Your task to perform on an android device: Open Google Maps and go to "Timeline" Image 0: 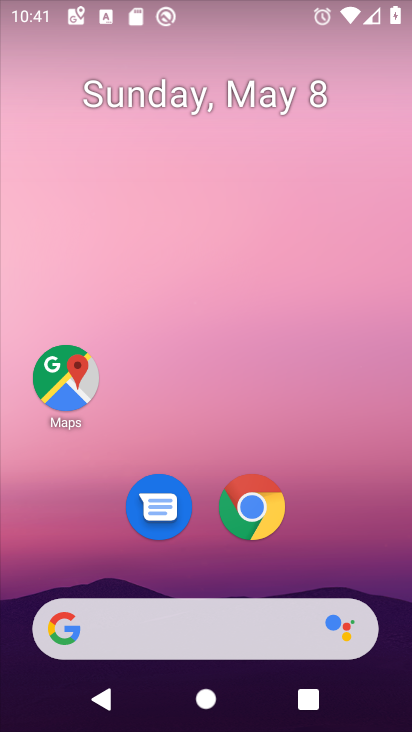
Step 0: click (74, 380)
Your task to perform on an android device: Open Google Maps and go to "Timeline" Image 1: 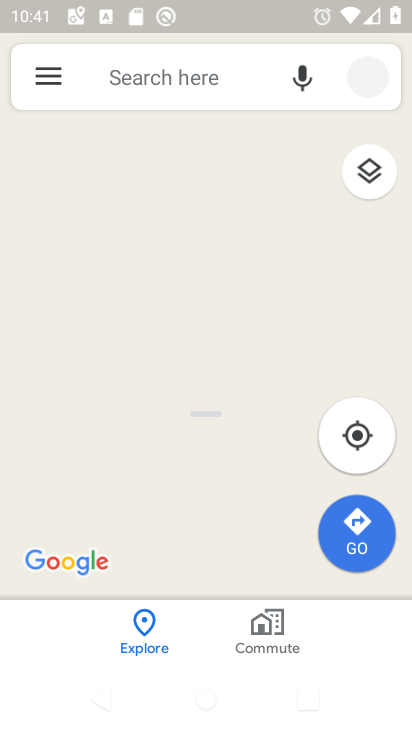
Step 1: click (43, 78)
Your task to perform on an android device: Open Google Maps and go to "Timeline" Image 2: 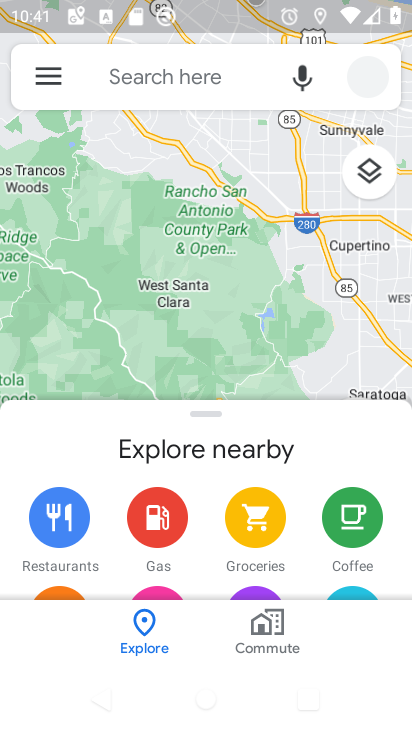
Step 2: click (45, 74)
Your task to perform on an android device: Open Google Maps and go to "Timeline" Image 3: 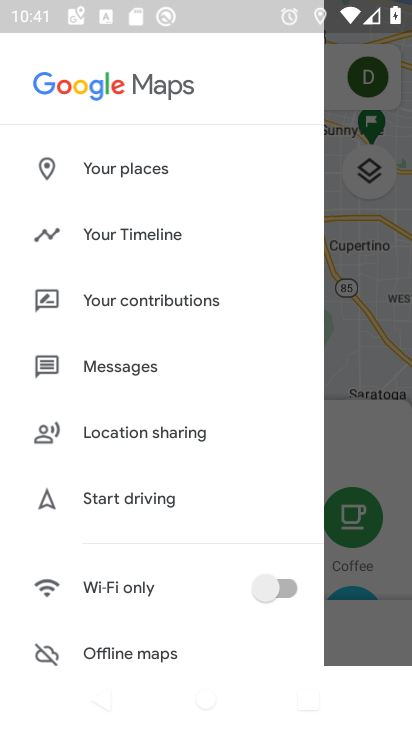
Step 3: click (161, 238)
Your task to perform on an android device: Open Google Maps and go to "Timeline" Image 4: 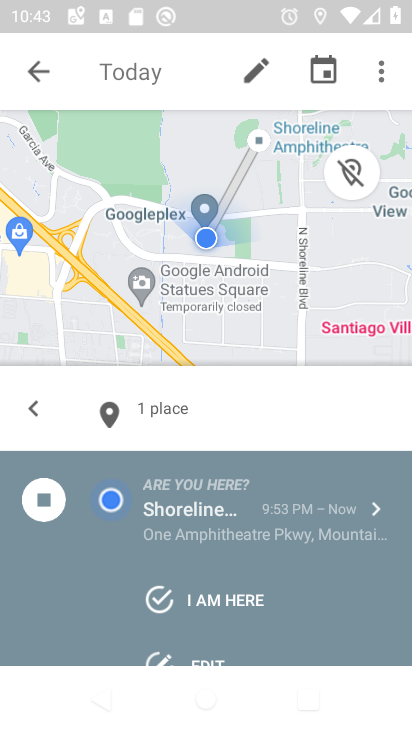
Step 4: task complete